Your task to perform on an android device: turn off translation in the chrome app Image 0: 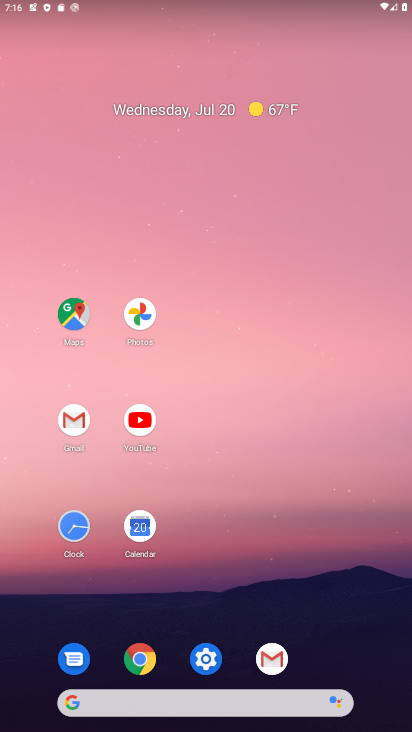
Step 0: click (142, 669)
Your task to perform on an android device: turn off translation in the chrome app Image 1: 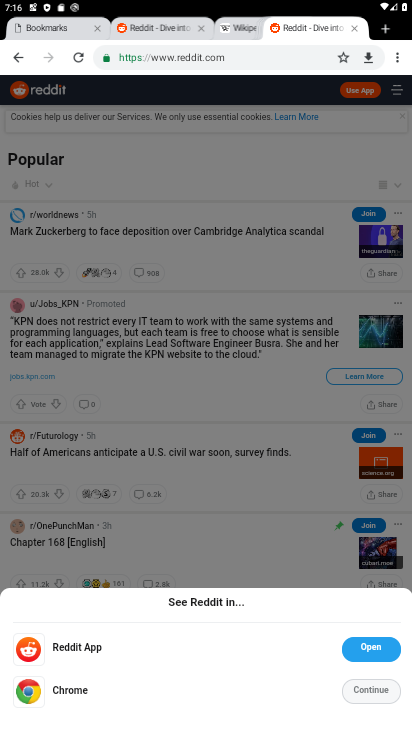
Step 1: click (400, 55)
Your task to perform on an android device: turn off translation in the chrome app Image 2: 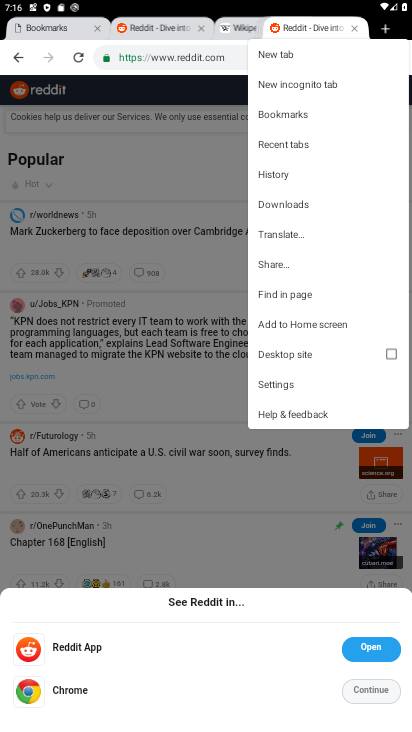
Step 2: click (276, 381)
Your task to perform on an android device: turn off translation in the chrome app Image 3: 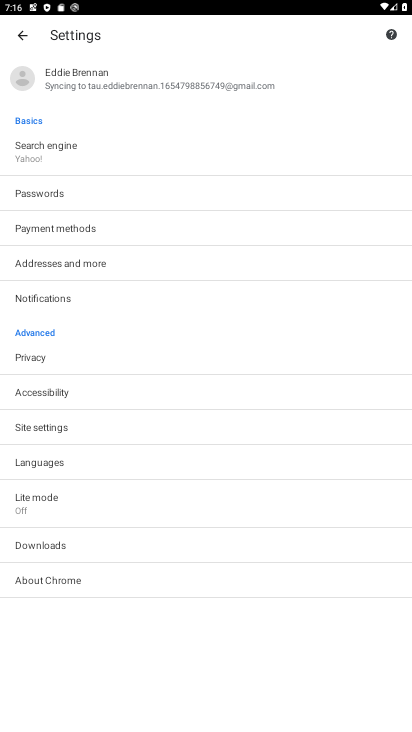
Step 3: click (53, 460)
Your task to perform on an android device: turn off translation in the chrome app Image 4: 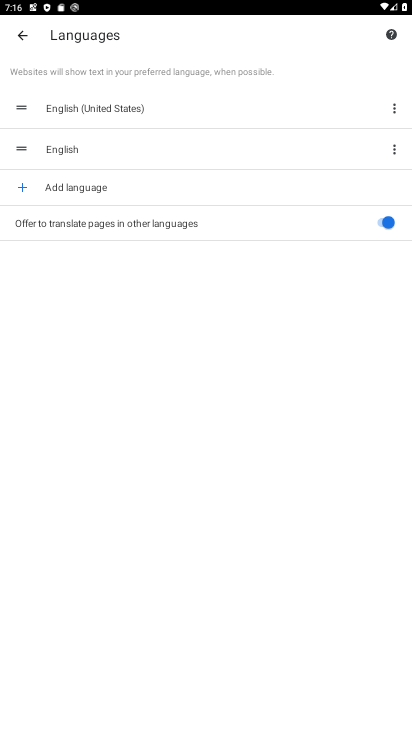
Step 4: click (387, 217)
Your task to perform on an android device: turn off translation in the chrome app Image 5: 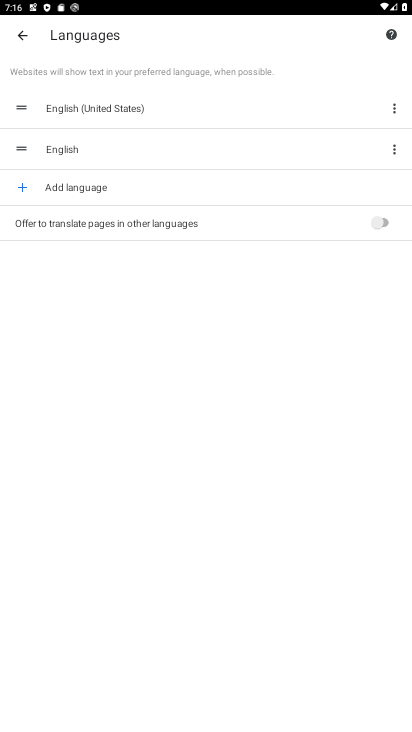
Step 5: task complete